Your task to perform on an android device: Go to settings Image 0: 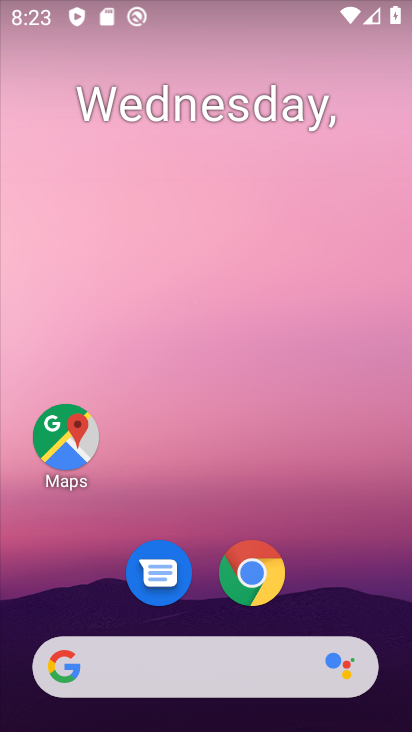
Step 0: drag from (263, 622) to (250, 156)
Your task to perform on an android device: Go to settings Image 1: 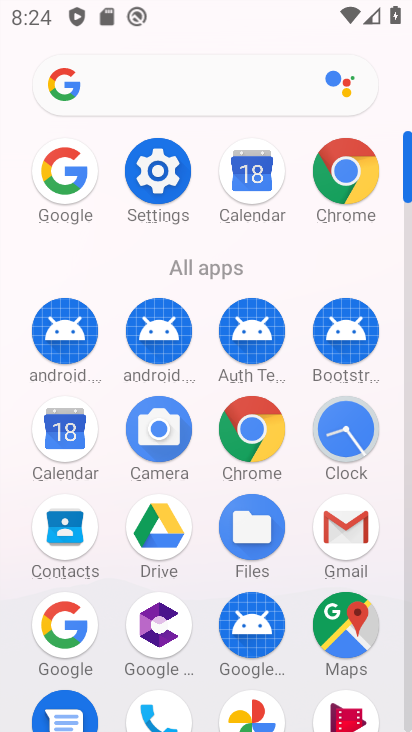
Step 1: click (140, 211)
Your task to perform on an android device: Go to settings Image 2: 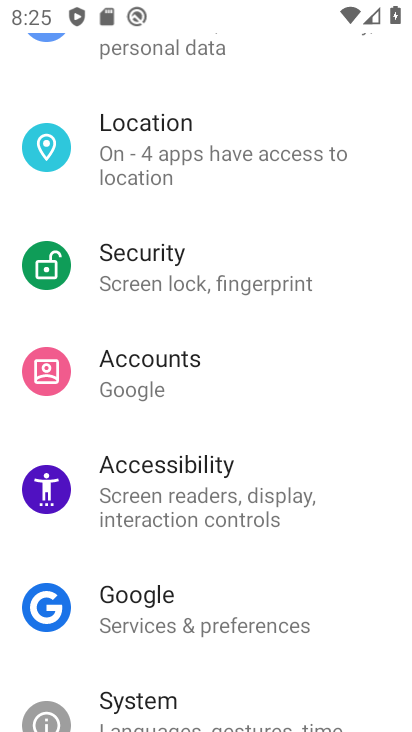
Step 2: task complete